Your task to perform on an android device: Go to Google maps Image 0: 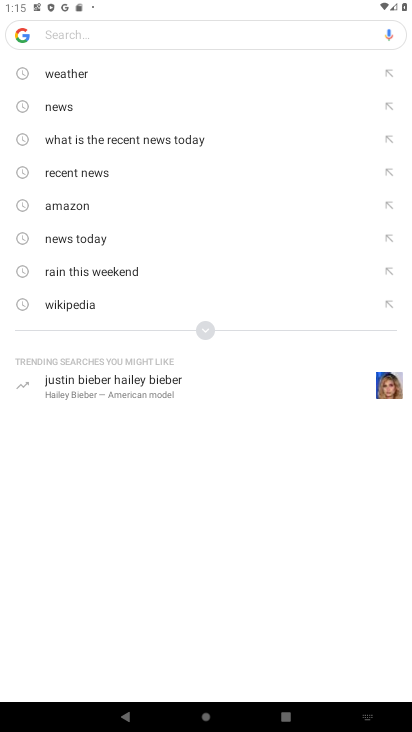
Step 0: press home button
Your task to perform on an android device: Go to Google maps Image 1: 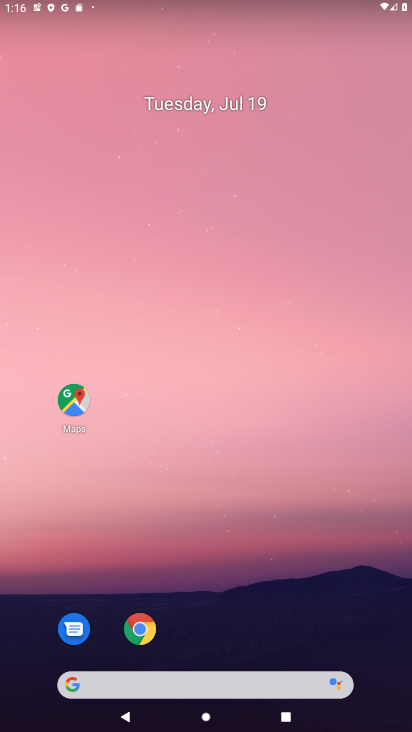
Step 1: click (80, 406)
Your task to perform on an android device: Go to Google maps Image 2: 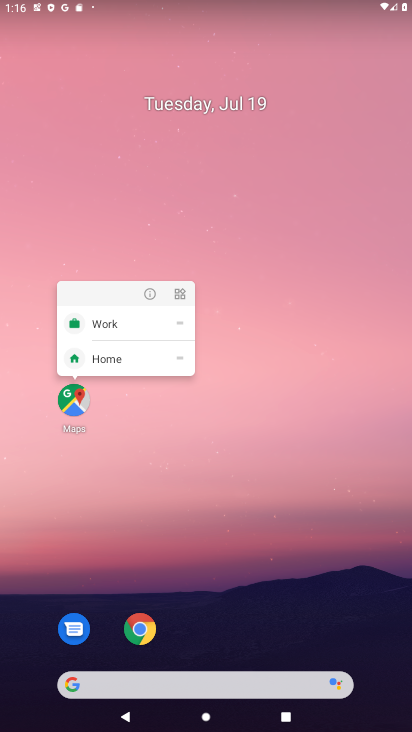
Step 2: click (74, 409)
Your task to perform on an android device: Go to Google maps Image 3: 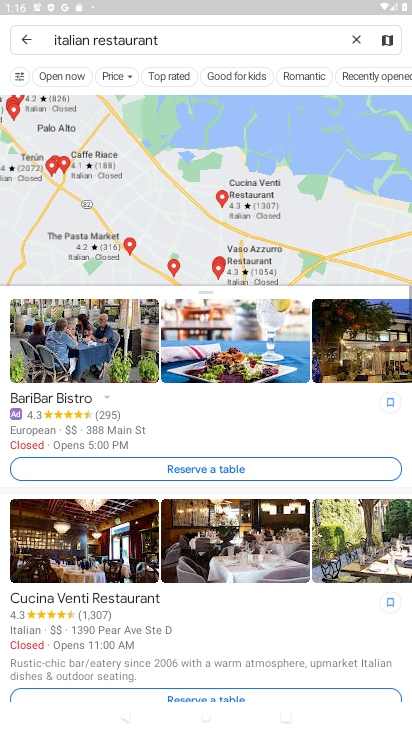
Step 3: click (20, 33)
Your task to perform on an android device: Go to Google maps Image 4: 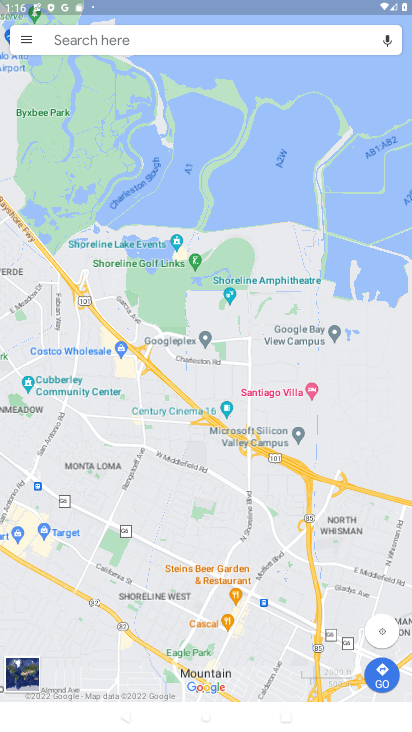
Step 4: task complete